Your task to perform on an android device: toggle javascript in the chrome app Image 0: 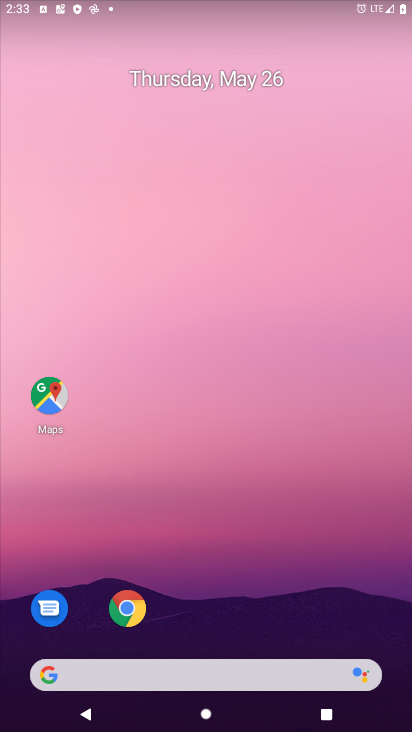
Step 0: click (129, 609)
Your task to perform on an android device: toggle javascript in the chrome app Image 1: 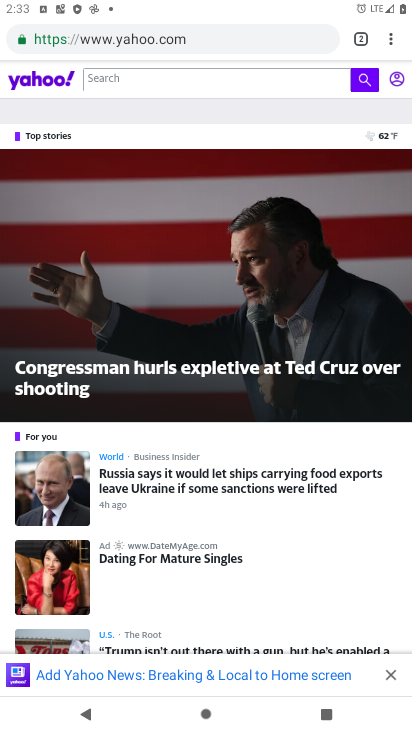
Step 1: click (388, 43)
Your task to perform on an android device: toggle javascript in the chrome app Image 2: 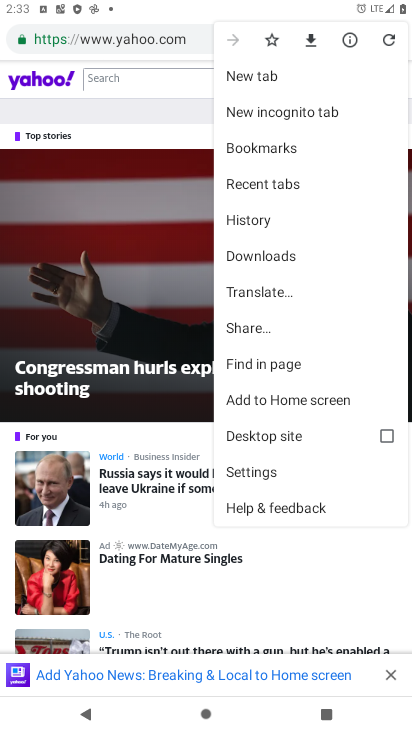
Step 2: click (261, 468)
Your task to perform on an android device: toggle javascript in the chrome app Image 3: 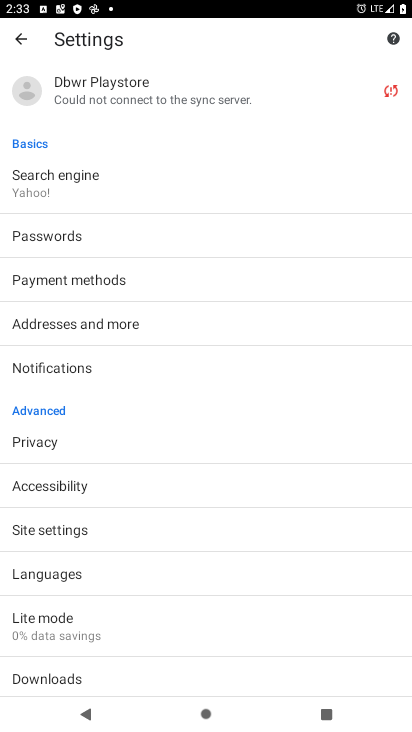
Step 3: click (48, 533)
Your task to perform on an android device: toggle javascript in the chrome app Image 4: 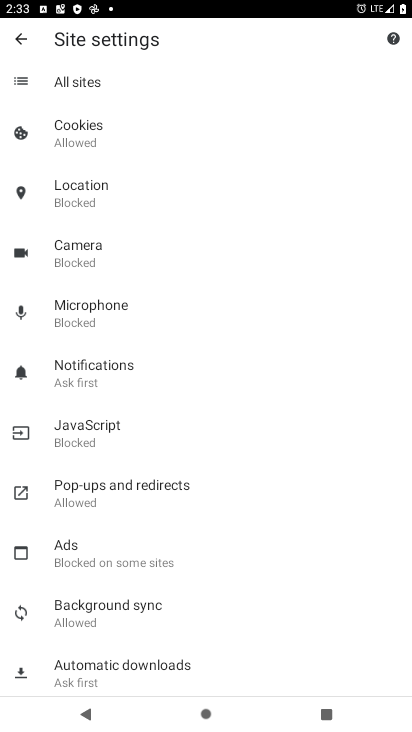
Step 4: click (85, 423)
Your task to perform on an android device: toggle javascript in the chrome app Image 5: 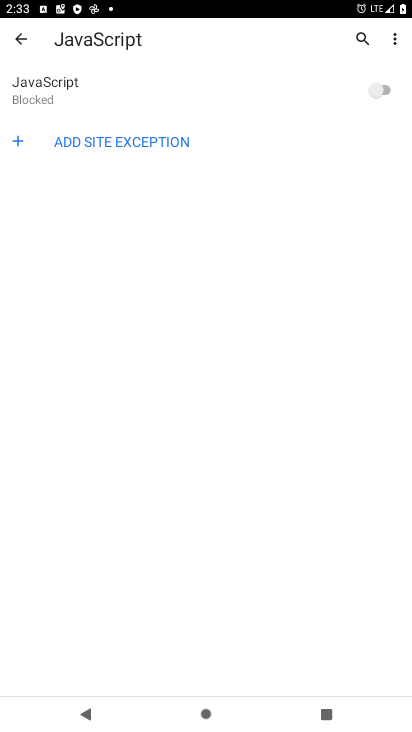
Step 5: click (384, 90)
Your task to perform on an android device: toggle javascript in the chrome app Image 6: 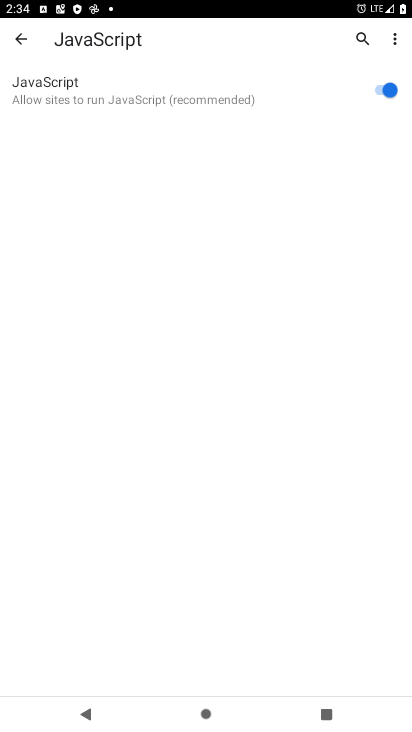
Step 6: task complete